Your task to perform on an android device: add a contact in the contacts app Image 0: 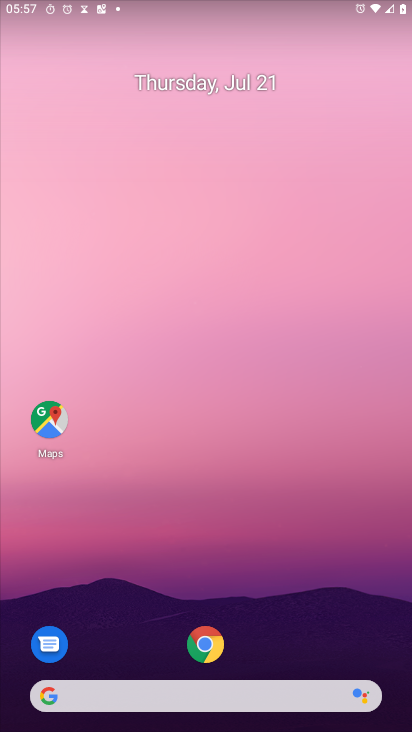
Step 0: drag from (297, 598) to (290, 105)
Your task to perform on an android device: add a contact in the contacts app Image 1: 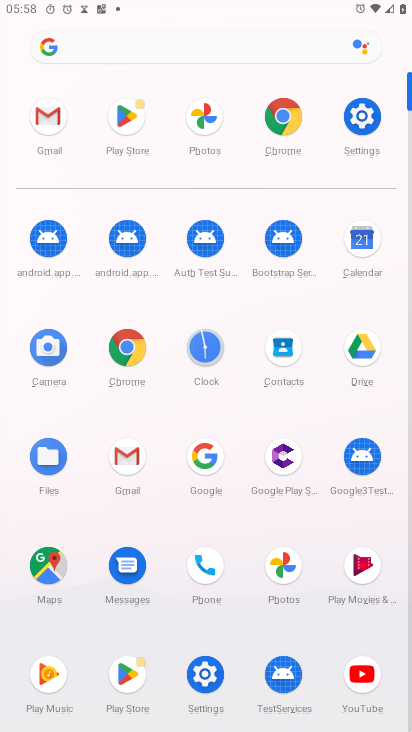
Step 1: click (286, 339)
Your task to perform on an android device: add a contact in the contacts app Image 2: 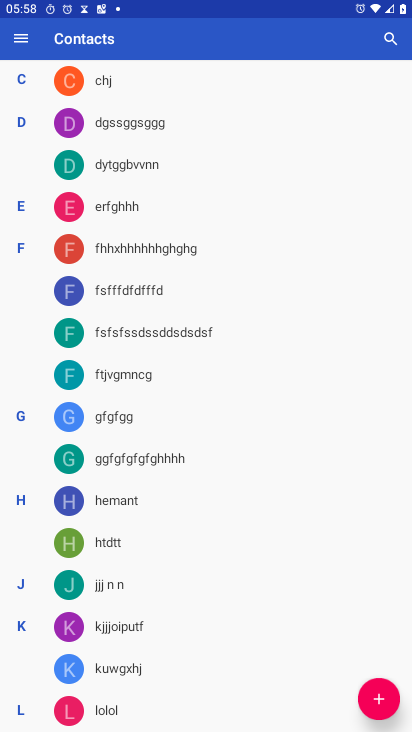
Step 2: click (370, 682)
Your task to perform on an android device: add a contact in the contacts app Image 3: 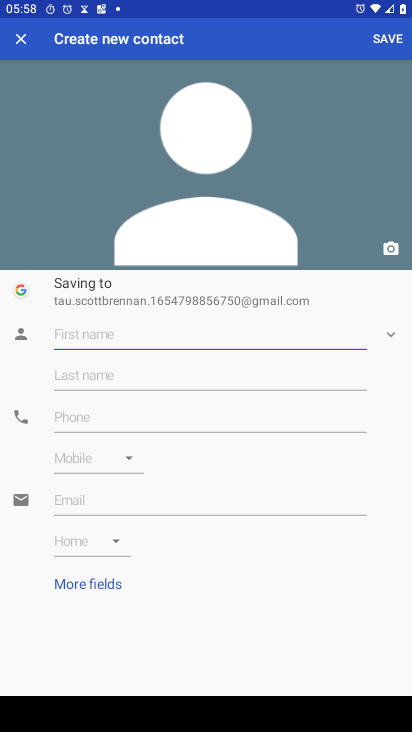
Step 3: type "dsdsdddsds"
Your task to perform on an android device: add a contact in the contacts app Image 4: 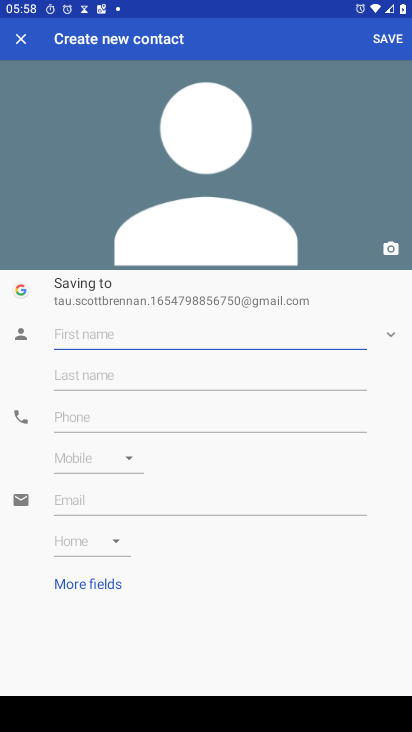
Step 4: click (141, 338)
Your task to perform on an android device: add a contact in the contacts app Image 5: 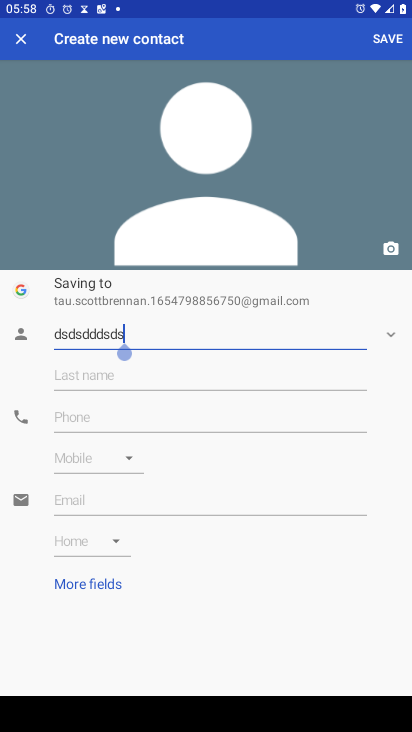
Step 5: click (94, 412)
Your task to perform on an android device: add a contact in the contacts app Image 6: 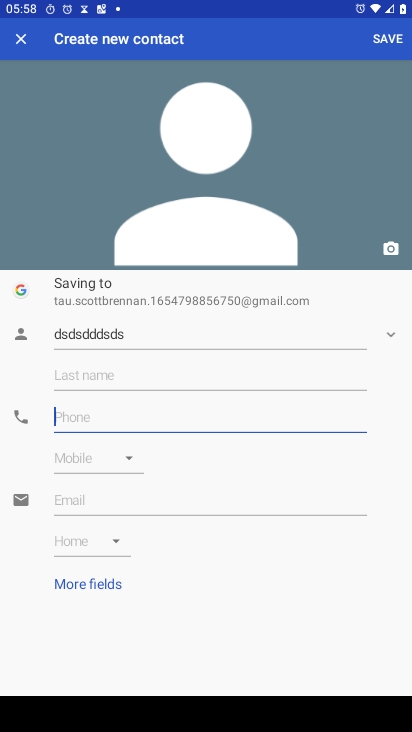
Step 6: type "2233332222"
Your task to perform on an android device: add a contact in the contacts app Image 7: 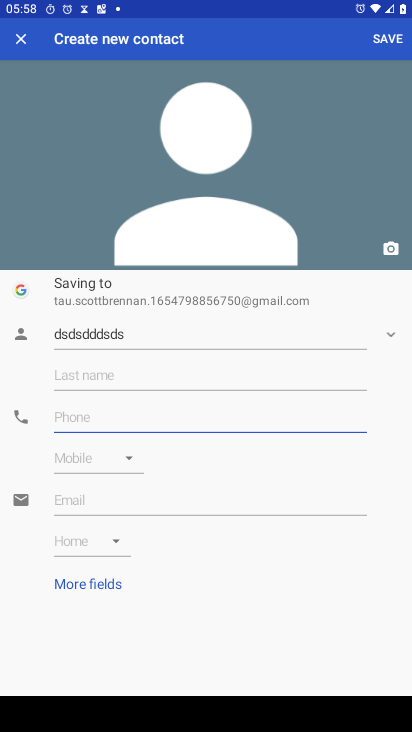
Step 7: click (193, 416)
Your task to perform on an android device: add a contact in the contacts app Image 8: 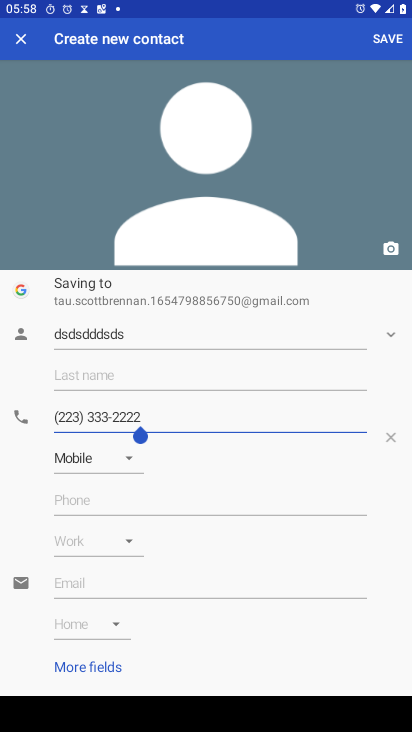
Step 8: click (396, 41)
Your task to perform on an android device: add a contact in the contacts app Image 9: 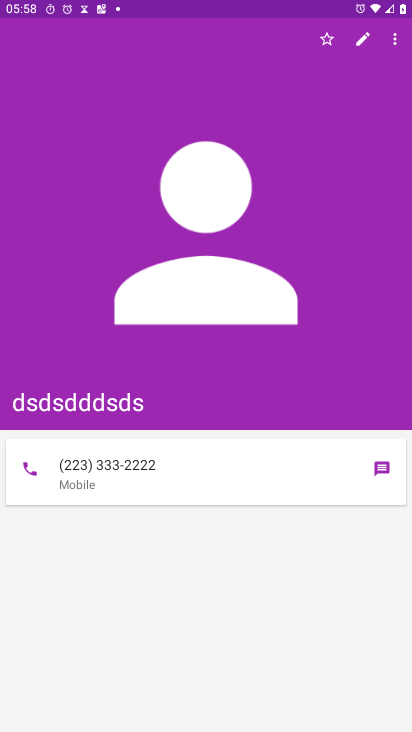
Step 9: task complete